Your task to perform on an android device: add a contact in the contacts app Image 0: 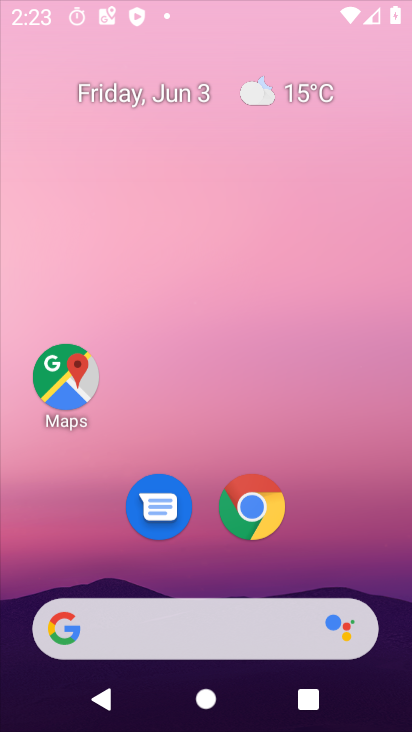
Step 0: drag from (403, 653) to (321, 143)
Your task to perform on an android device: add a contact in the contacts app Image 1: 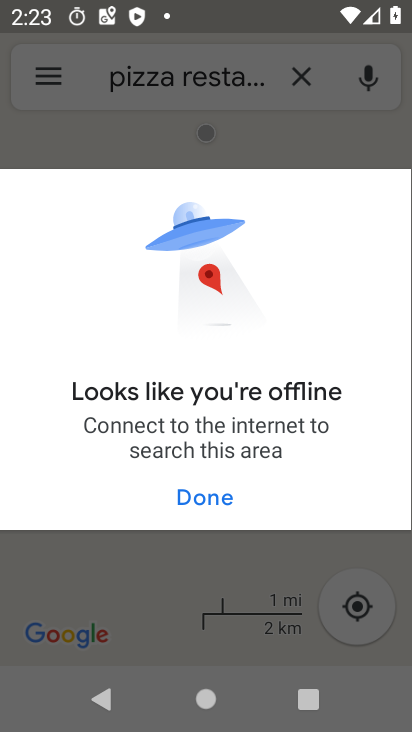
Step 1: press home button
Your task to perform on an android device: add a contact in the contacts app Image 2: 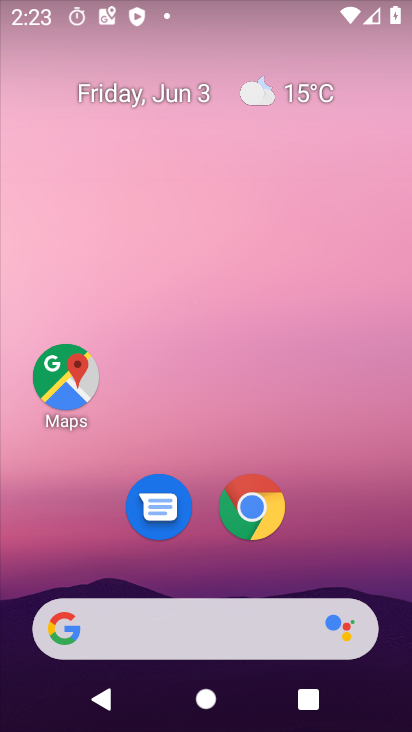
Step 2: drag from (393, 626) to (237, 82)
Your task to perform on an android device: add a contact in the contacts app Image 3: 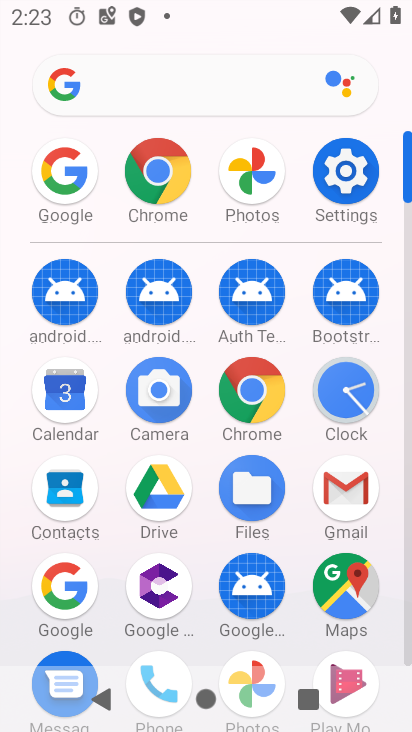
Step 3: click (56, 496)
Your task to perform on an android device: add a contact in the contacts app Image 4: 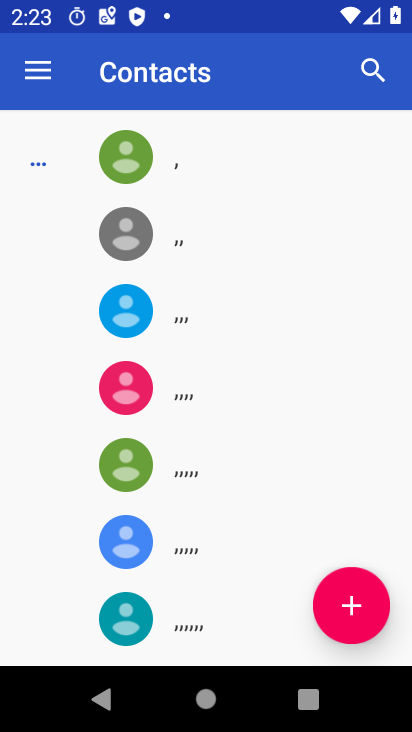
Step 4: click (367, 609)
Your task to perform on an android device: add a contact in the contacts app Image 5: 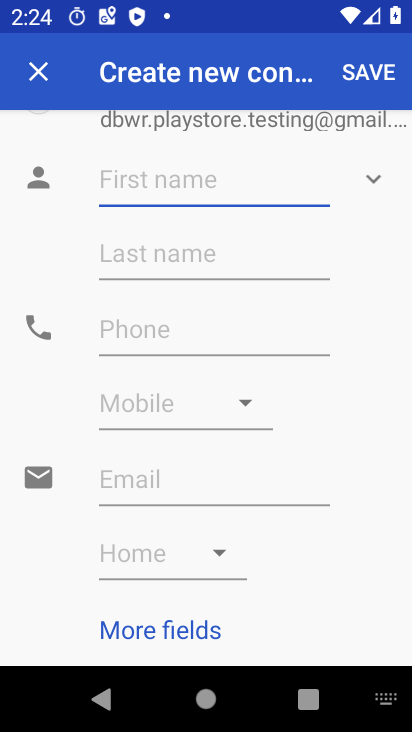
Step 5: type "aliza"
Your task to perform on an android device: add a contact in the contacts app Image 6: 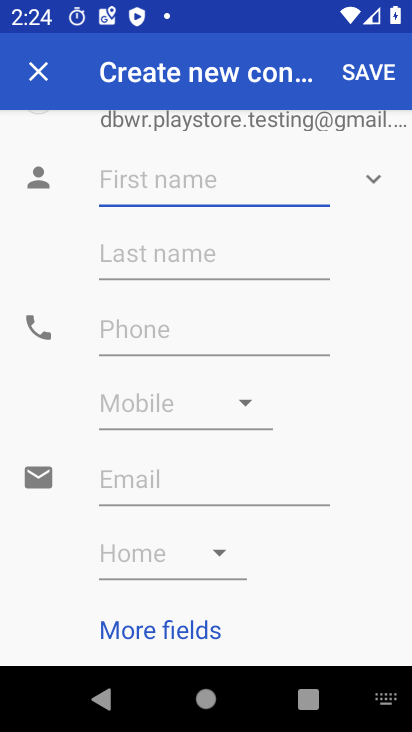
Step 6: click (369, 80)
Your task to perform on an android device: add a contact in the contacts app Image 7: 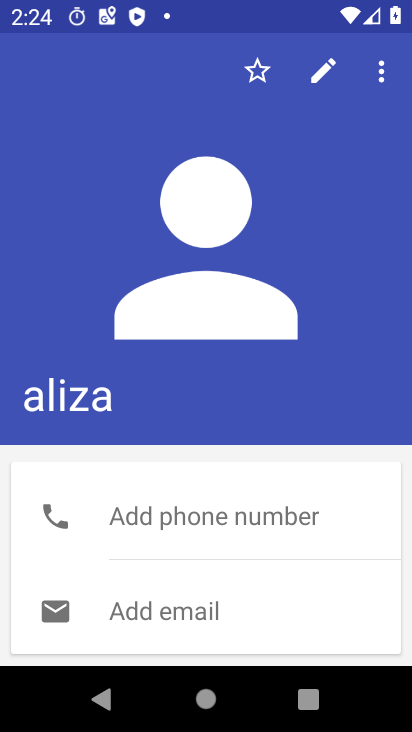
Step 7: task complete